Your task to perform on an android device: Go to Amazon Image 0: 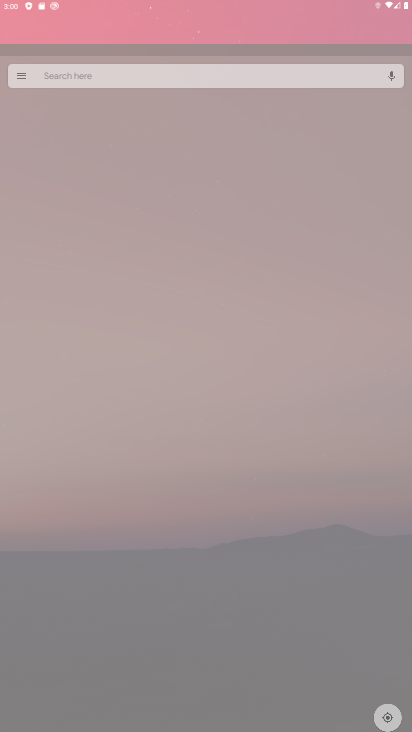
Step 0: press home button
Your task to perform on an android device: Go to Amazon Image 1: 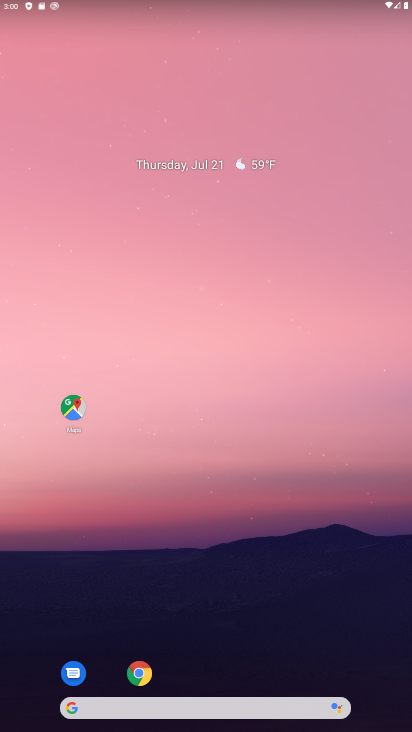
Step 1: click (137, 668)
Your task to perform on an android device: Go to Amazon Image 2: 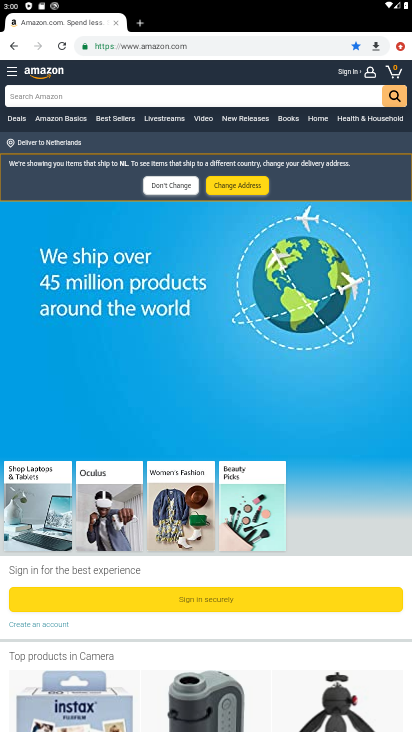
Step 2: click (138, 23)
Your task to perform on an android device: Go to Amazon Image 3: 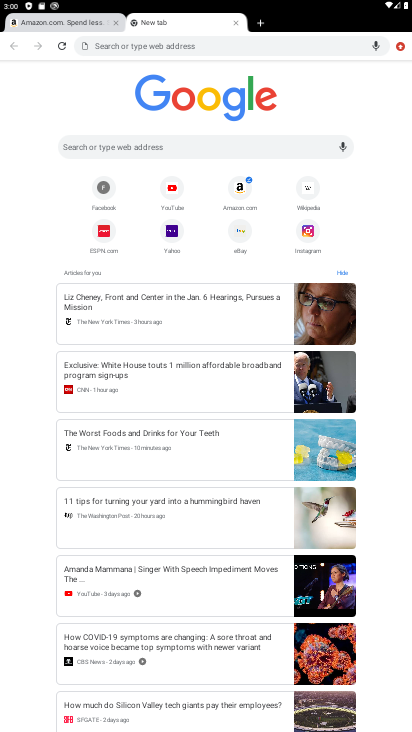
Step 3: click (246, 202)
Your task to perform on an android device: Go to Amazon Image 4: 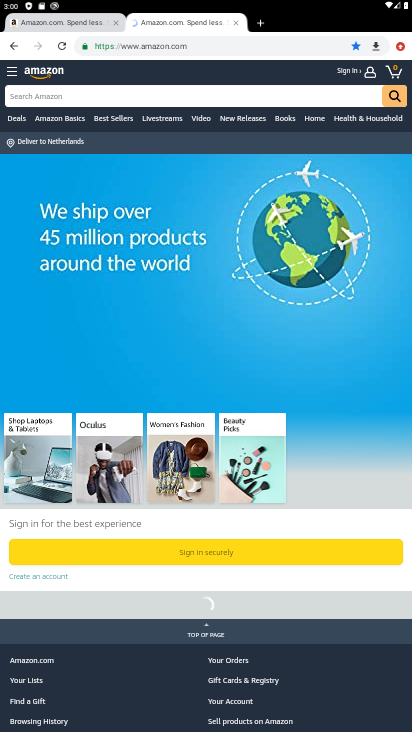
Step 4: task complete